Your task to perform on an android device: manage bookmarks in the chrome app Image 0: 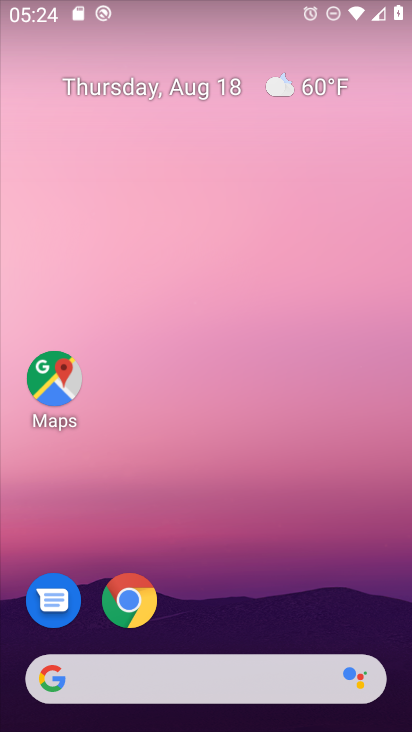
Step 0: press home button
Your task to perform on an android device: manage bookmarks in the chrome app Image 1: 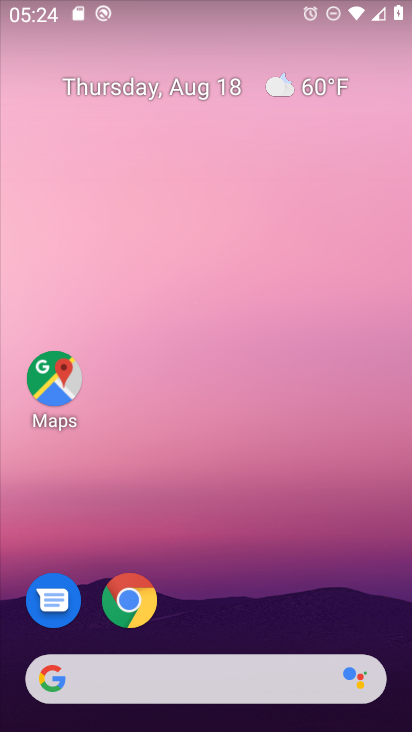
Step 1: click (128, 607)
Your task to perform on an android device: manage bookmarks in the chrome app Image 2: 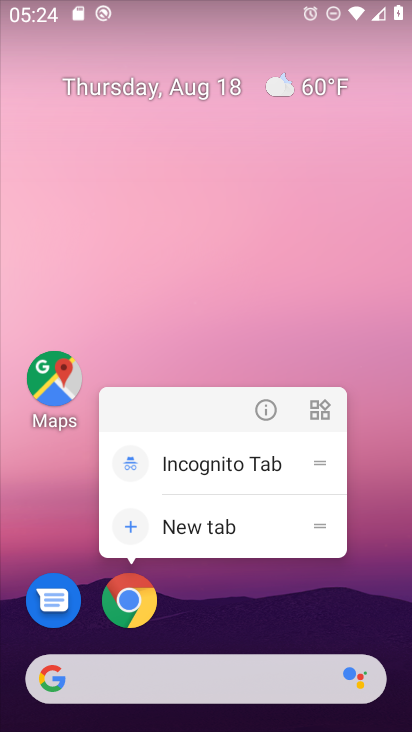
Step 2: click (131, 607)
Your task to perform on an android device: manage bookmarks in the chrome app Image 3: 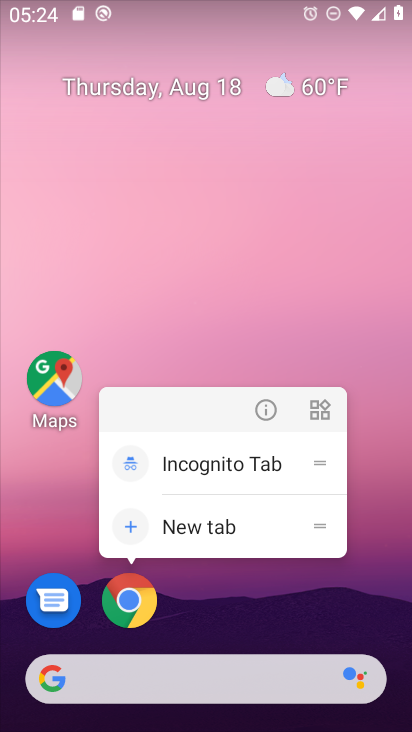
Step 3: click (131, 607)
Your task to perform on an android device: manage bookmarks in the chrome app Image 4: 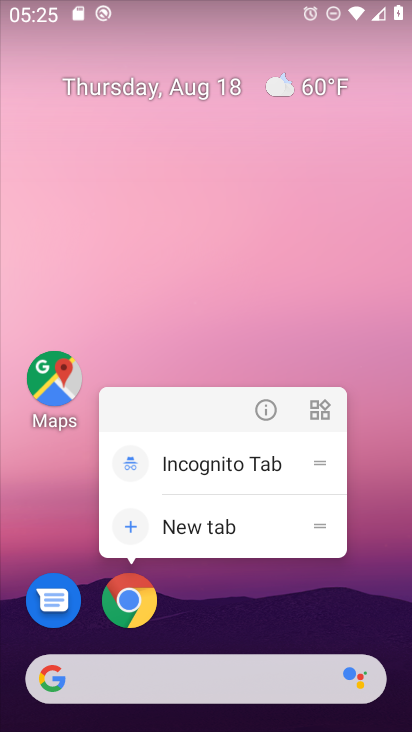
Step 4: click (131, 607)
Your task to perform on an android device: manage bookmarks in the chrome app Image 5: 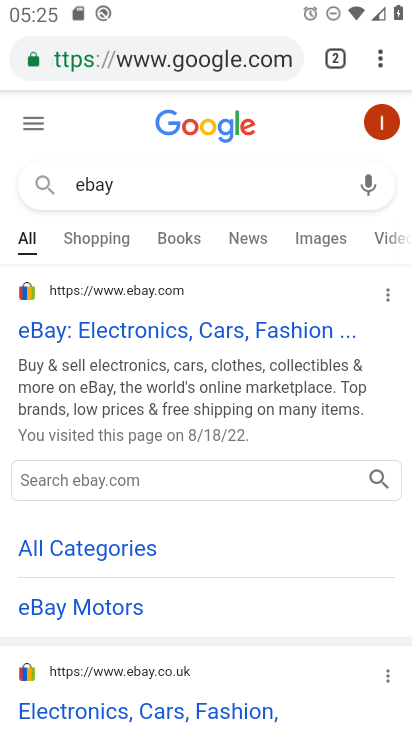
Step 5: drag from (379, 61) to (232, 225)
Your task to perform on an android device: manage bookmarks in the chrome app Image 6: 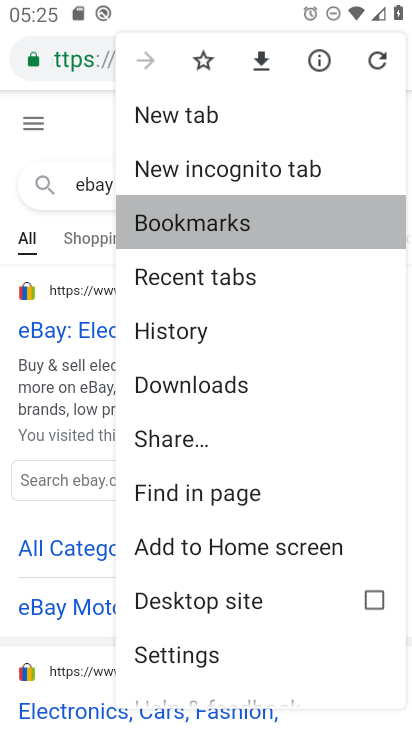
Step 6: click (232, 225)
Your task to perform on an android device: manage bookmarks in the chrome app Image 7: 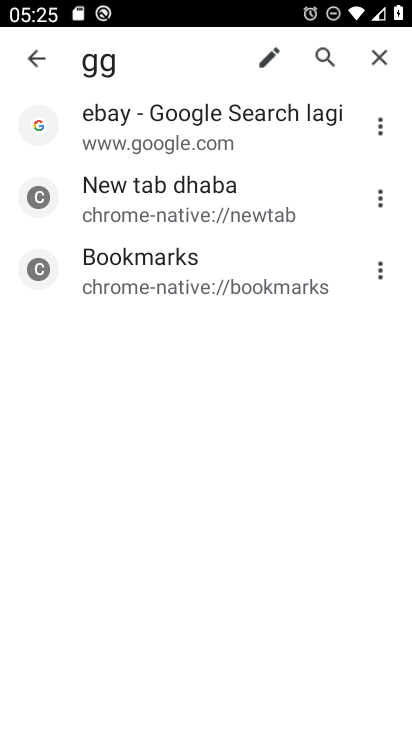
Step 7: click (379, 200)
Your task to perform on an android device: manage bookmarks in the chrome app Image 8: 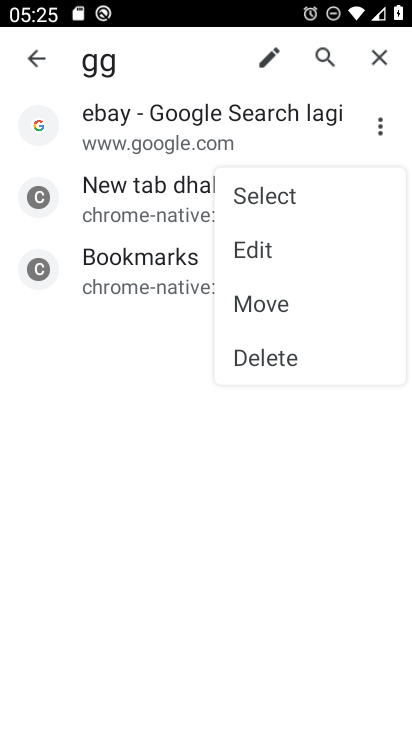
Step 8: click (260, 249)
Your task to perform on an android device: manage bookmarks in the chrome app Image 9: 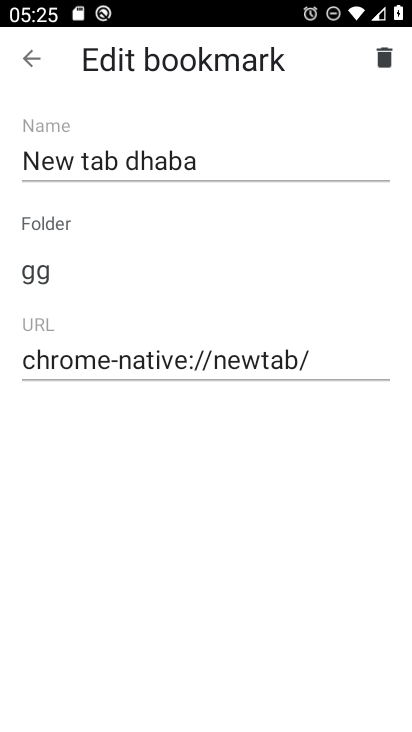
Step 9: task complete